Your task to perform on an android device: toggle sleep mode Image 0: 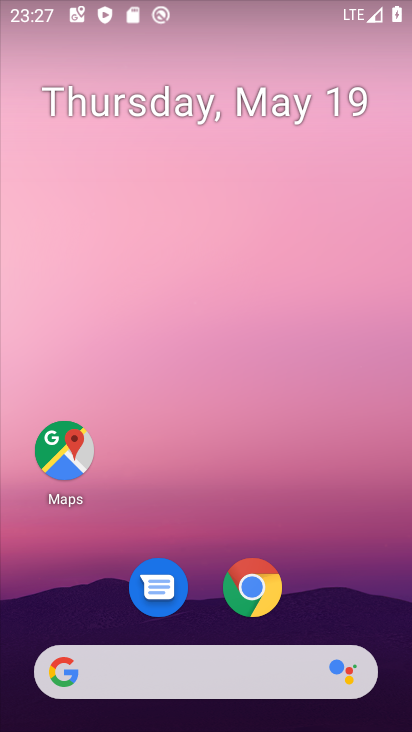
Step 0: press home button
Your task to perform on an android device: toggle sleep mode Image 1: 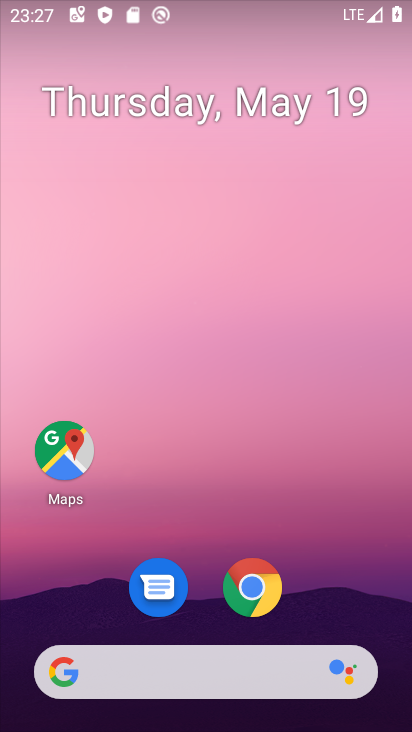
Step 1: drag from (263, 695) to (260, 206)
Your task to perform on an android device: toggle sleep mode Image 2: 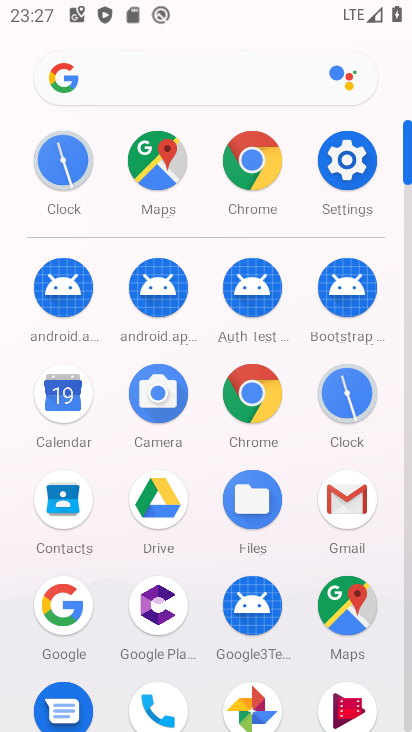
Step 2: click (340, 182)
Your task to perform on an android device: toggle sleep mode Image 3: 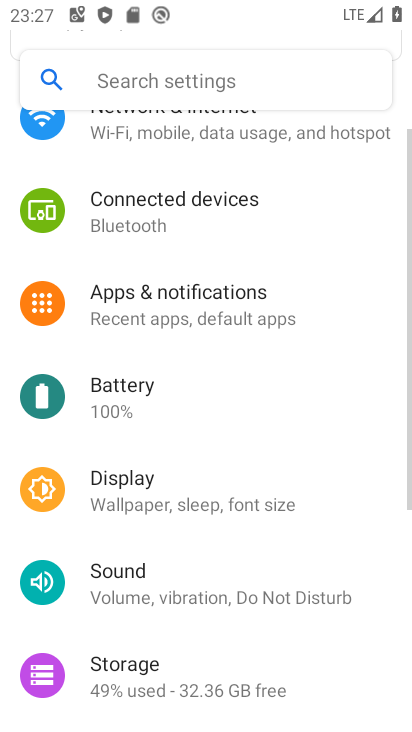
Step 3: click (189, 78)
Your task to perform on an android device: toggle sleep mode Image 4: 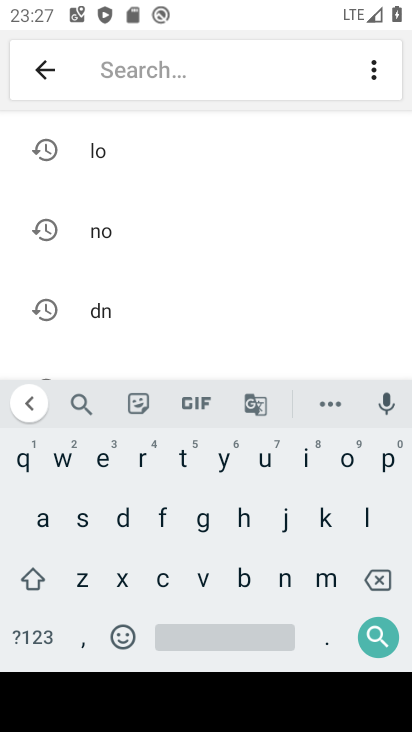
Step 4: click (82, 518)
Your task to perform on an android device: toggle sleep mode Image 5: 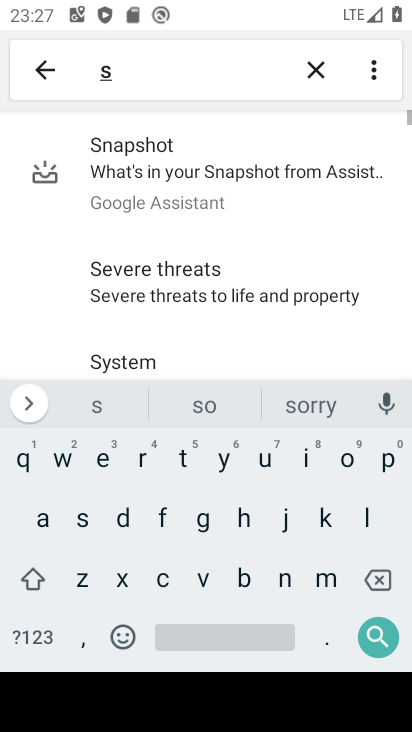
Step 5: click (368, 522)
Your task to perform on an android device: toggle sleep mode Image 6: 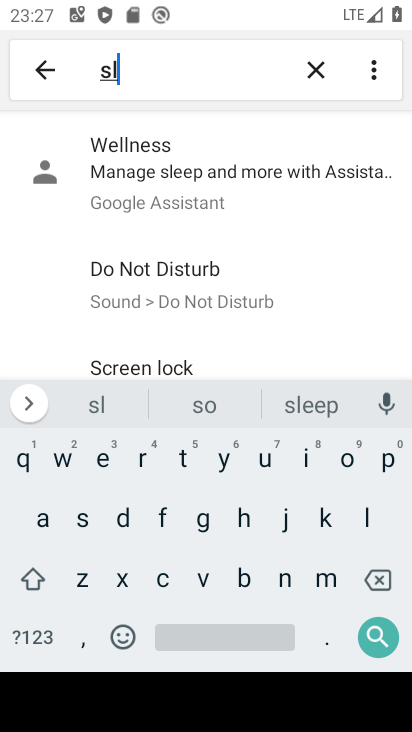
Step 6: click (138, 170)
Your task to perform on an android device: toggle sleep mode Image 7: 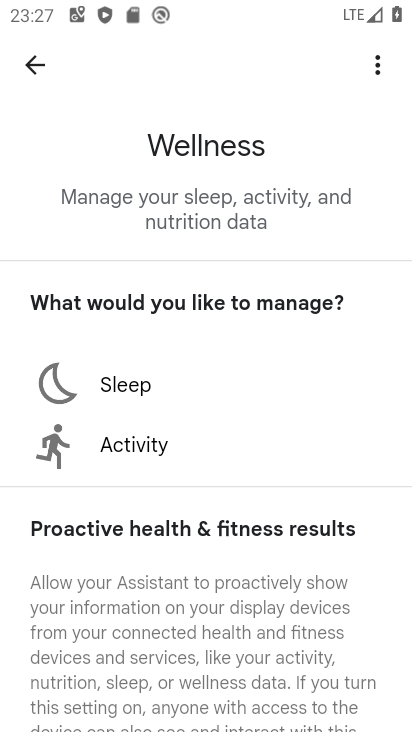
Step 7: click (127, 387)
Your task to perform on an android device: toggle sleep mode Image 8: 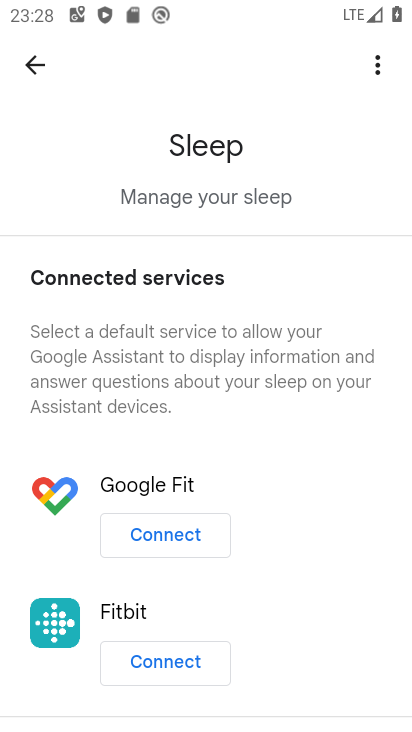
Step 8: task complete